Your task to perform on an android device: show emergency info Image 0: 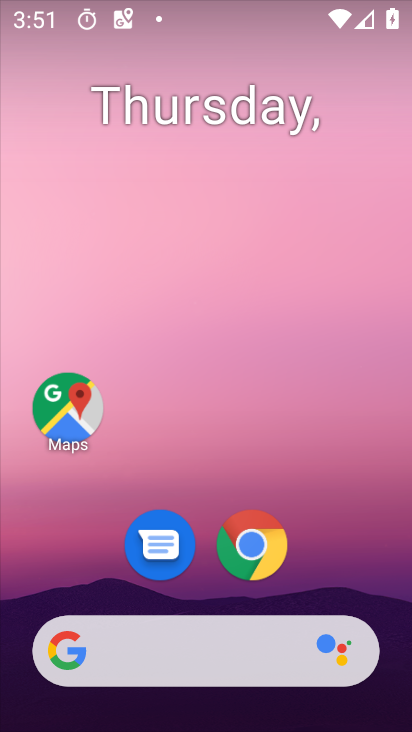
Step 0: drag from (211, 713) to (207, 171)
Your task to perform on an android device: show emergency info Image 1: 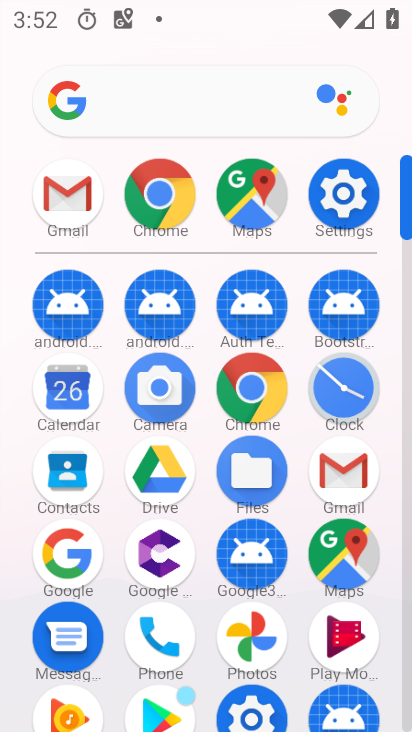
Step 1: click (351, 188)
Your task to perform on an android device: show emergency info Image 2: 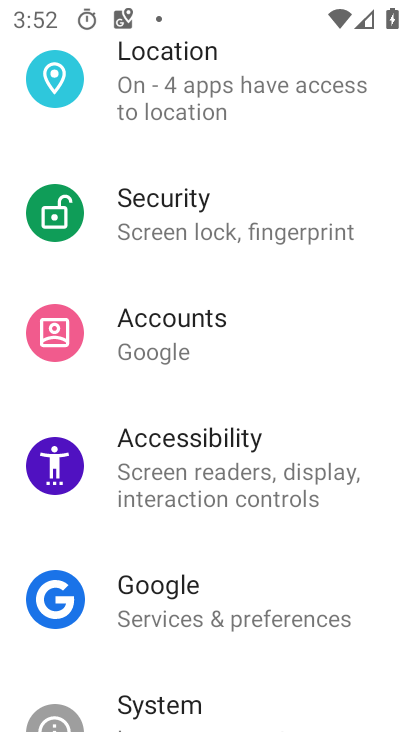
Step 2: drag from (226, 604) to (245, 157)
Your task to perform on an android device: show emergency info Image 3: 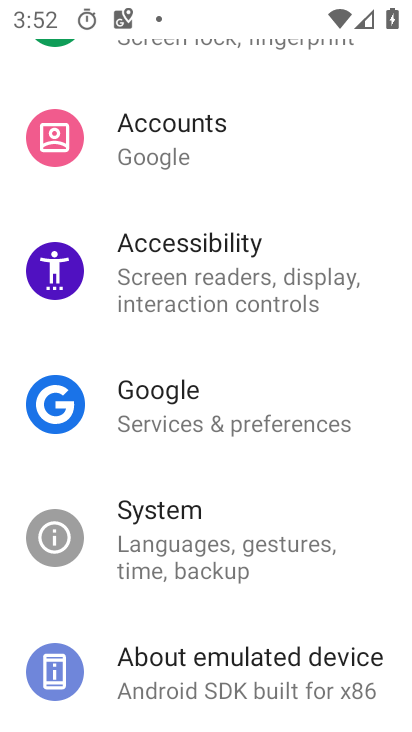
Step 3: click (201, 667)
Your task to perform on an android device: show emergency info Image 4: 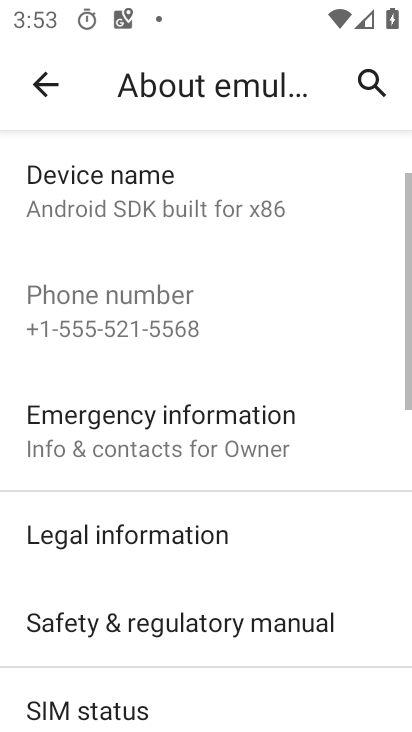
Step 4: click (188, 439)
Your task to perform on an android device: show emergency info Image 5: 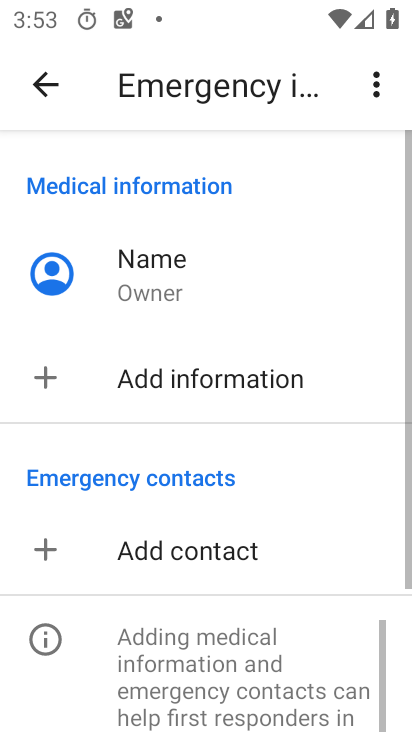
Step 5: task complete